Your task to perform on an android device: Go to Amazon Image 0: 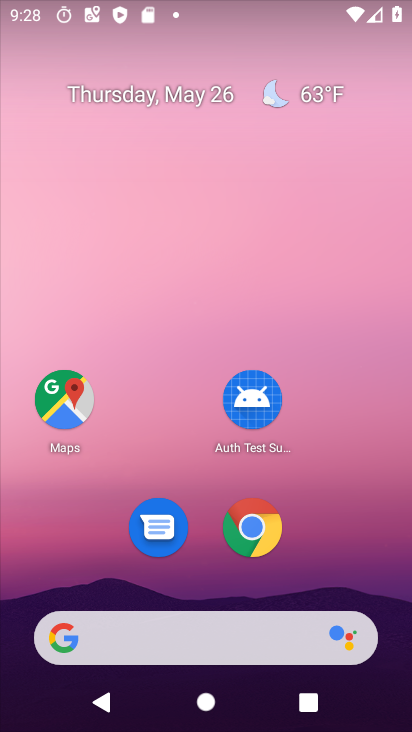
Step 0: drag from (337, 577) to (342, 14)
Your task to perform on an android device: Go to Amazon Image 1: 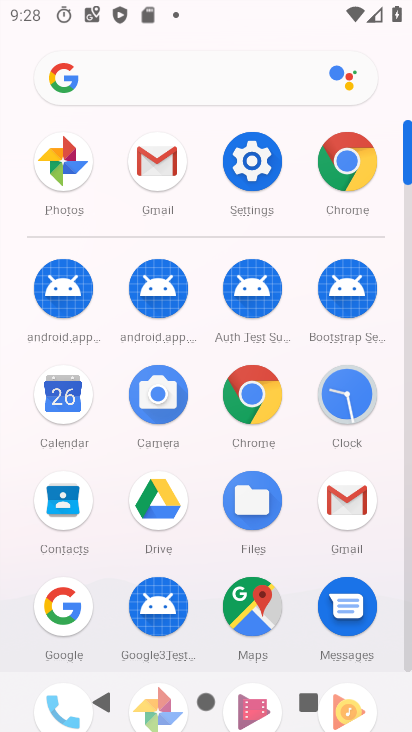
Step 1: click (255, 396)
Your task to perform on an android device: Go to Amazon Image 2: 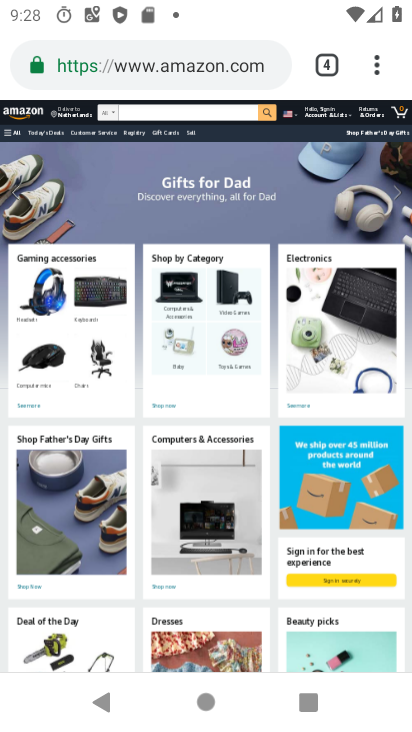
Step 2: task complete